Your task to perform on an android device: turn off priority inbox in the gmail app Image 0: 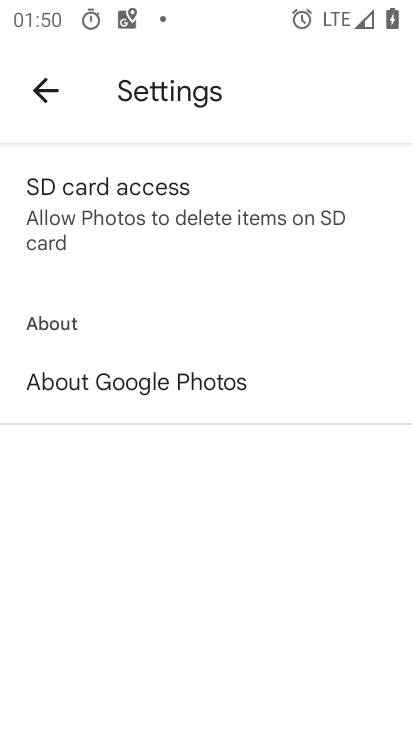
Step 0: press home button
Your task to perform on an android device: turn off priority inbox in the gmail app Image 1: 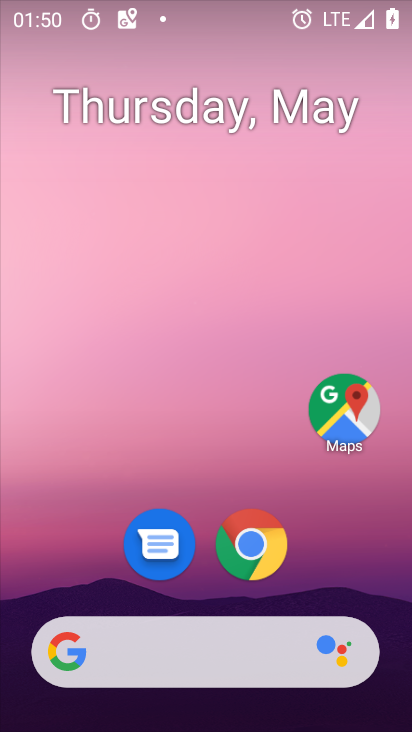
Step 1: drag from (354, 586) to (346, 244)
Your task to perform on an android device: turn off priority inbox in the gmail app Image 2: 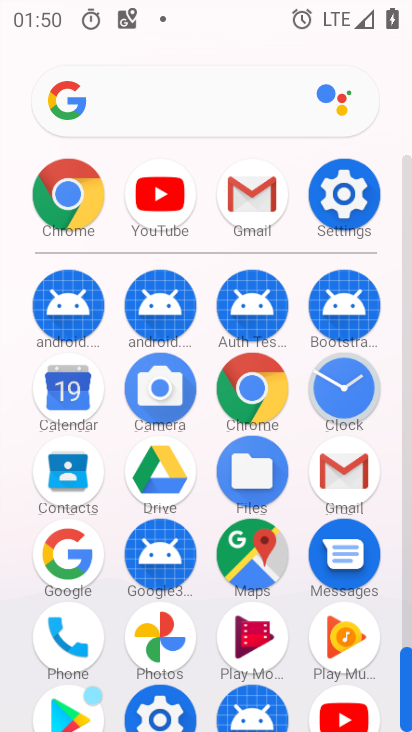
Step 2: click (352, 495)
Your task to perform on an android device: turn off priority inbox in the gmail app Image 3: 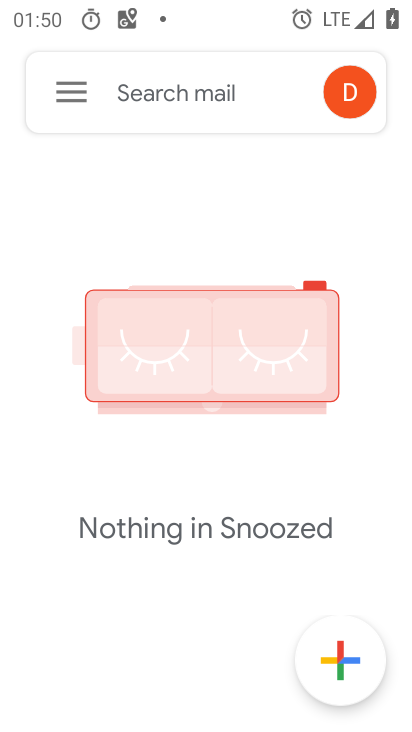
Step 3: click (76, 98)
Your task to perform on an android device: turn off priority inbox in the gmail app Image 4: 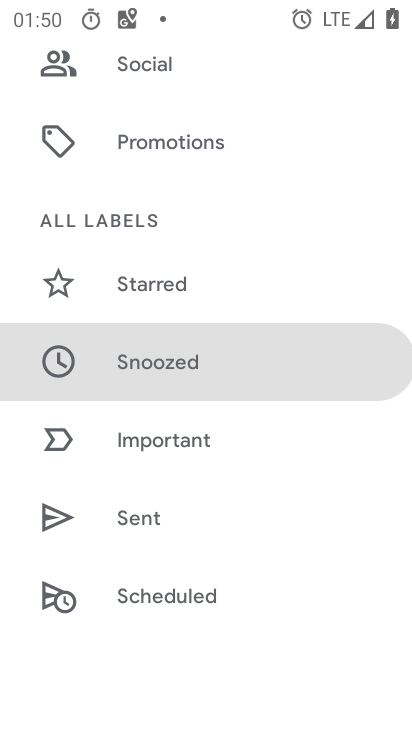
Step 4: drag from (310, 539) to (328, 419)
Your task to perform on an android device: turn off priority inbox in the gmail app Image 5: 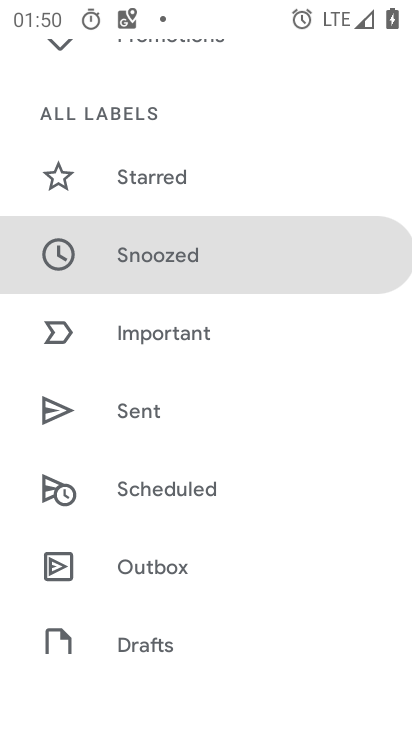
Step 5: drag from (311, 585) to (307, 403)
Your task to perform on an android device: turn off priority inbox in the gmail app Image 6: 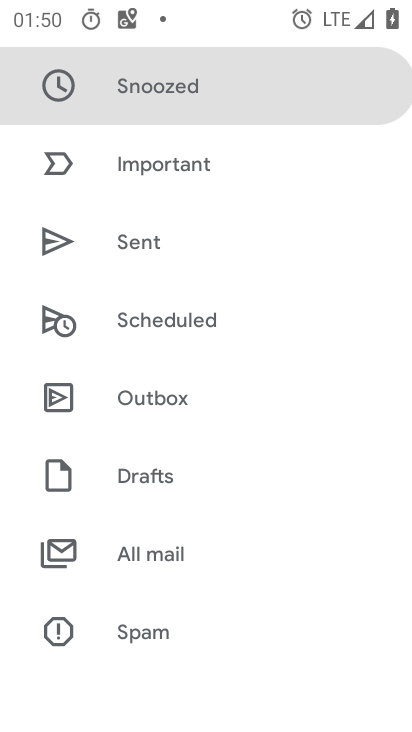
Step 6: drag from (314, 566) to (305, 449)
Your task to perform on an android device: turn off priority inbox in the gmail app Image 7: 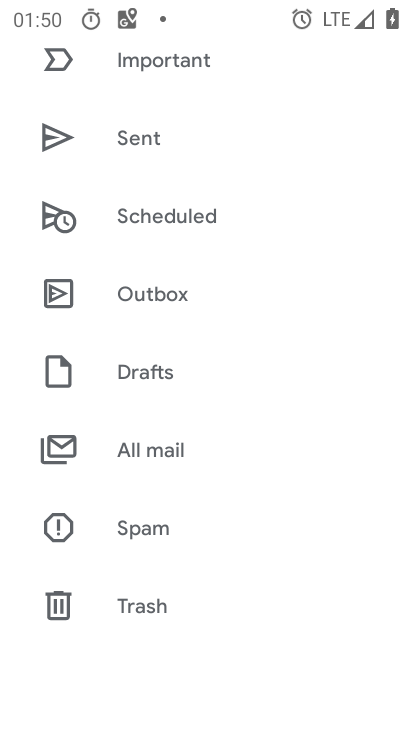
Step 7: drag from (287, 541) to (296, 380)
Your task to perform on an android device: turn off priority inbox in the gmail app Image 8: 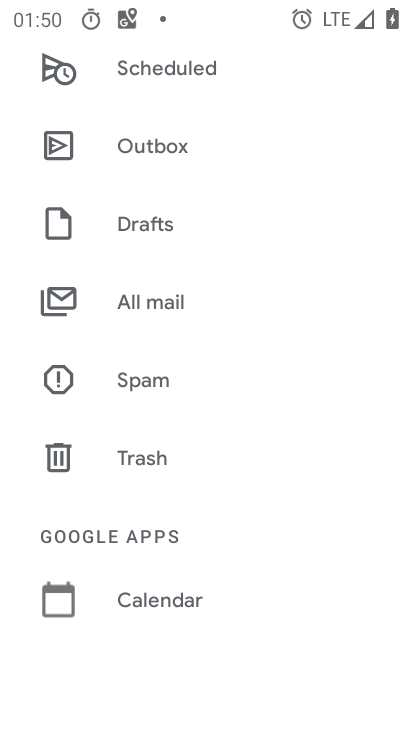
Step 8: drag from (326, 568) to (343, 440)
Your task to perform on an android device: turn off priority inbox in the gmail app Image 9: 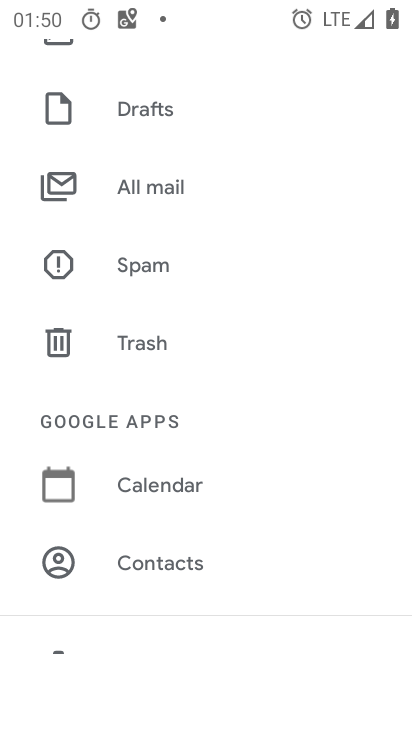
Step 9: drag from (271, 659) to (293, 486)
Your task to perform on an android device: turn off priority inbox in the gmail app Image 10: 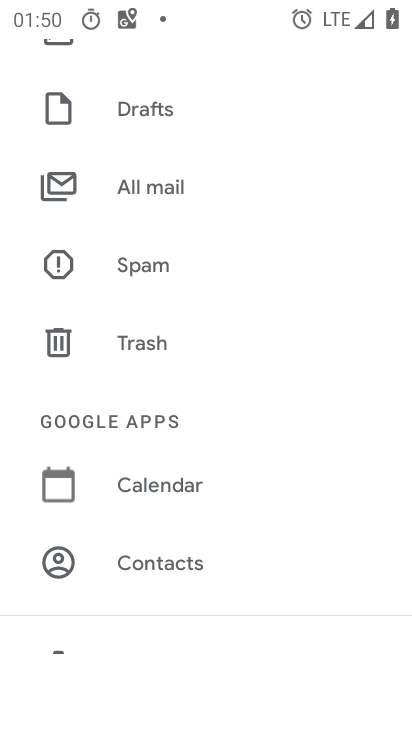
Step 10: drag from (276, 584) to (275, 401)
Your task to perform on an android device: turn off priority inbox in the gmail app Image 11: 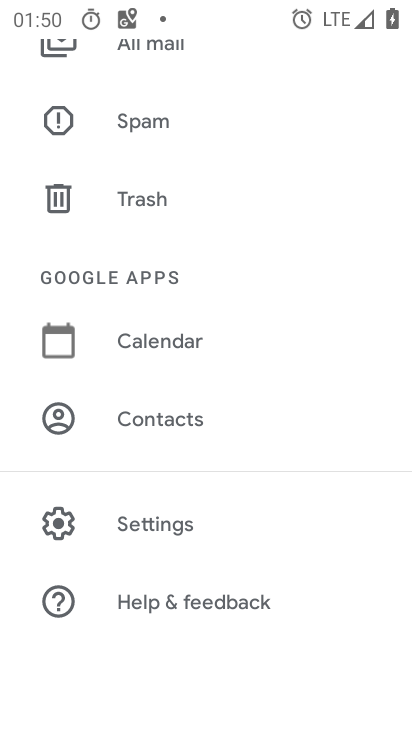
Step 11: click (195, 531)
Your task to perform on an android device: turn off priority inbox in the gmail app Image 12: 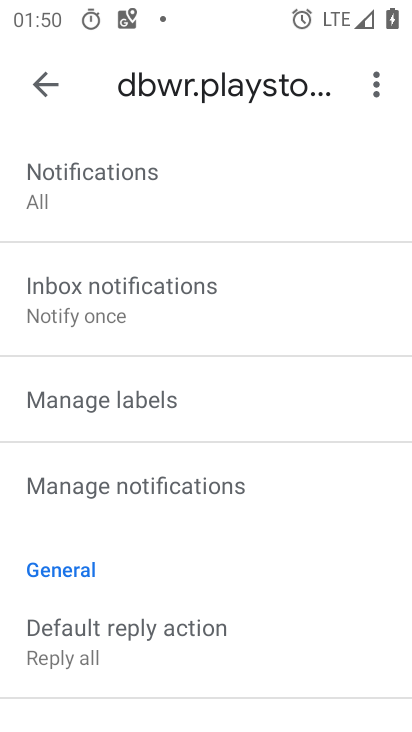
Step 12: task complete